Your task to perform on an android device: check battery use Image 0: 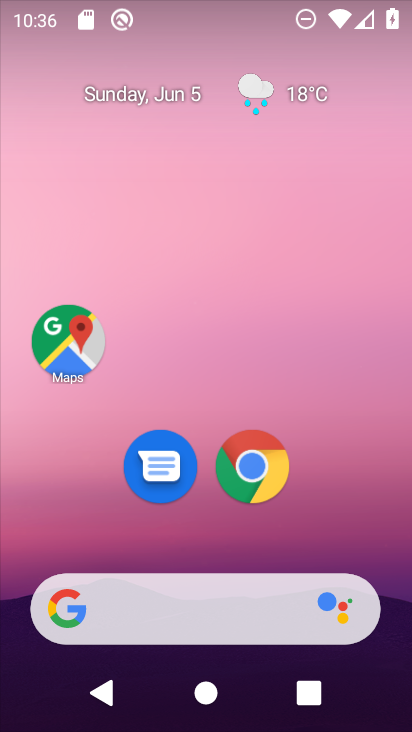
Step 0: drag from (360, 560) to (294, 30)
Your task to perform on an android device: check battery use Image 1: 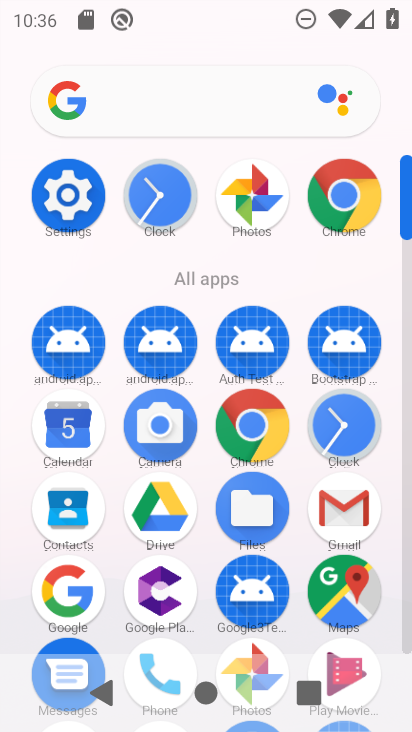
Step 1: click (66, 192)
Your task to perform on an android device: check battery use Image 2: 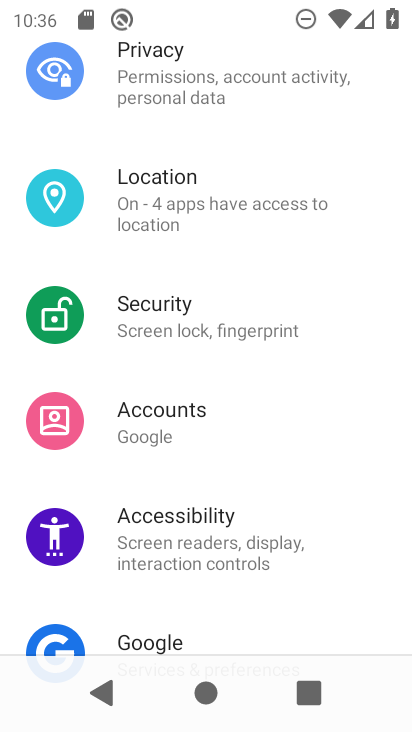
Step 2: drag from (256, 188) to (253, 543)
Your task to perform on an android device: check battery use Image 3: 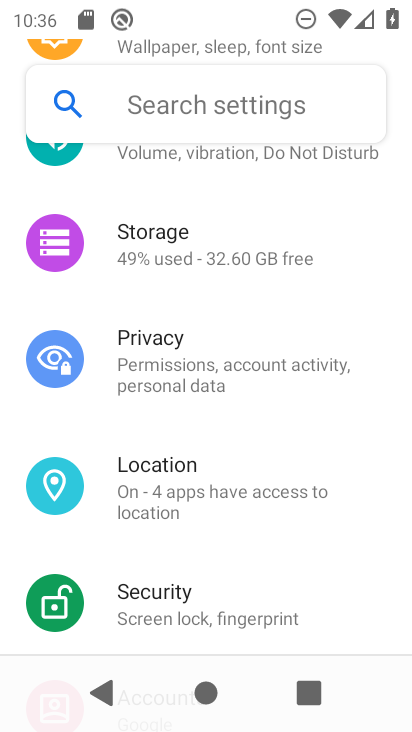
Step 3: drag from (251, 298) to (234, 563)
Your task to perform on an android device: check battery use Image 4: 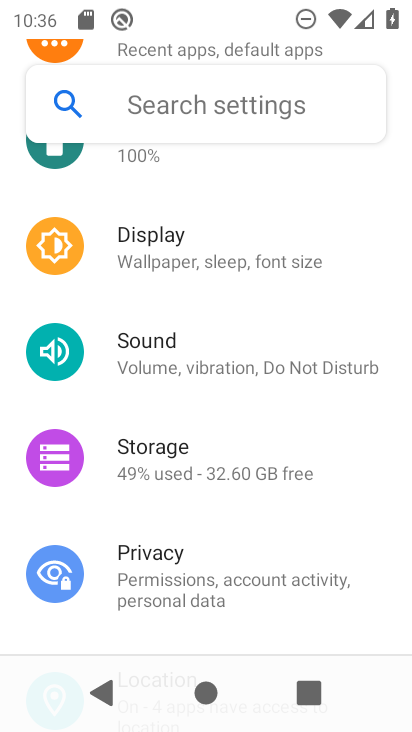
Step 4: drag from (253, 212) to (232, 514)
Your task to perform on an android device: check battery use Image 5: 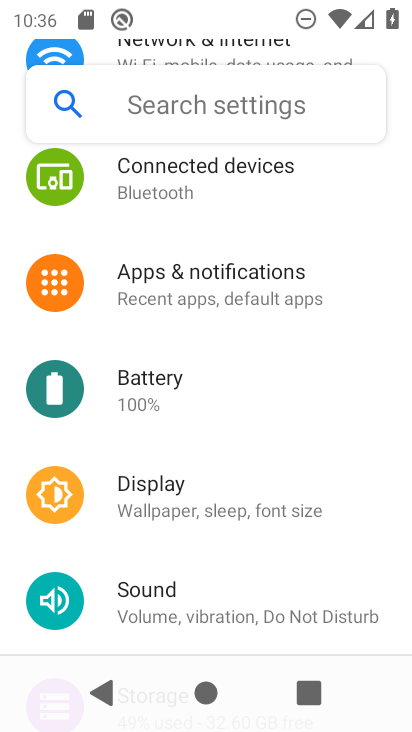
Step 5: click (166, 382)
Your task to perform on an android device: check battery use Image 6: 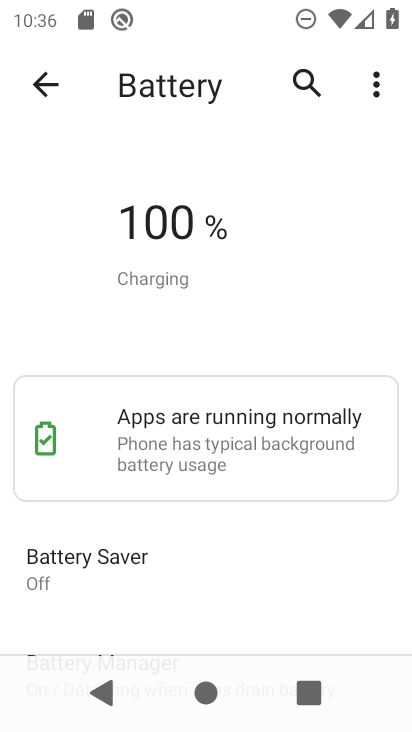
Step 6: task complete